Your task to perform on an android device: find snoozed emails in the gmail app Image 0: 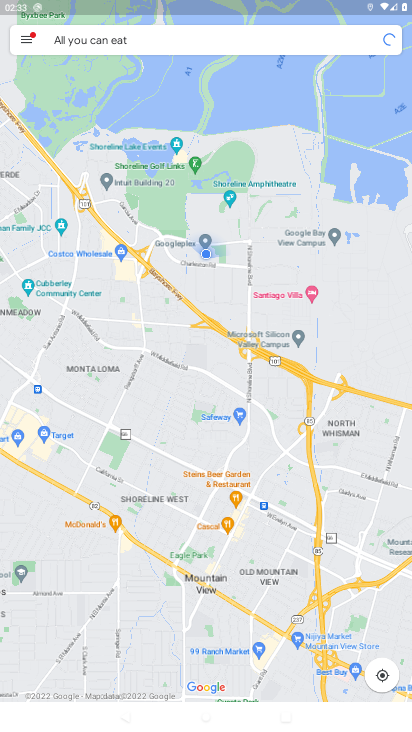
Step 0: drag from (218, 262) to (305, 39)
Your task to perform on an android device: find snoozed emails in the gmail app Image 1: 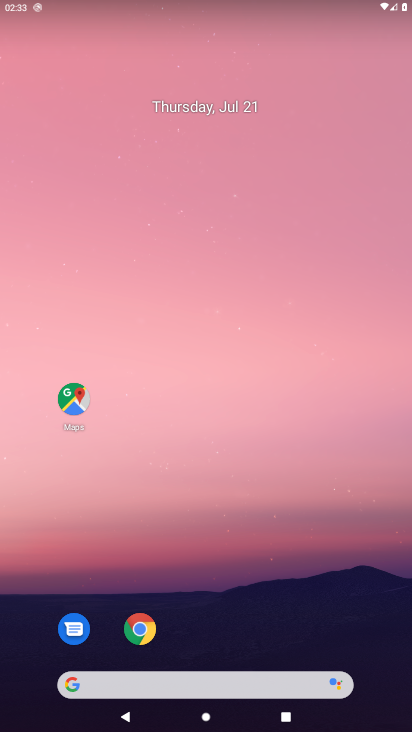
Step 1: drag from (18, 673) to (240, 184)
Your task to perform on an android device: find snoozed emails in the gmail app Image 2: 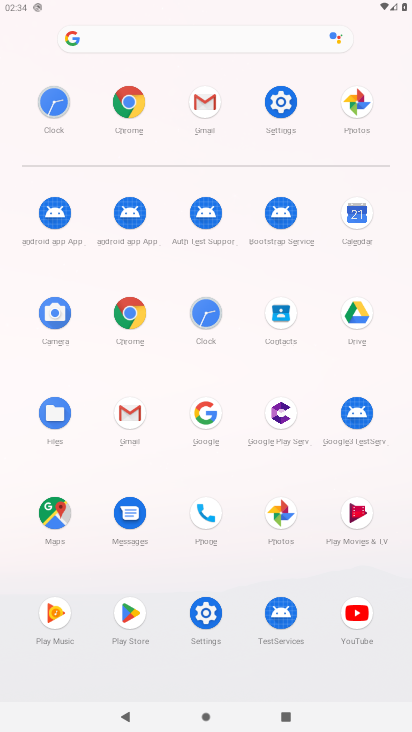
Step 2: click (120, 401)
Your task to perform on an android device: find snoozed emails in the gmail app Image 3: 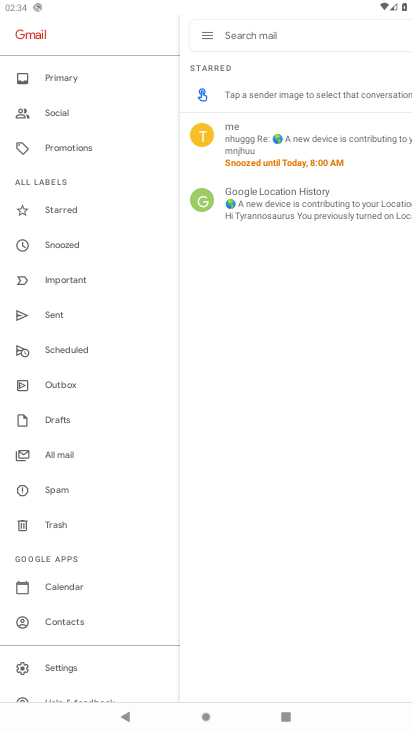
Step 3: click (53, 240)
Your task to perform on an android device: find snoozed emails in the gmail app Image 4: 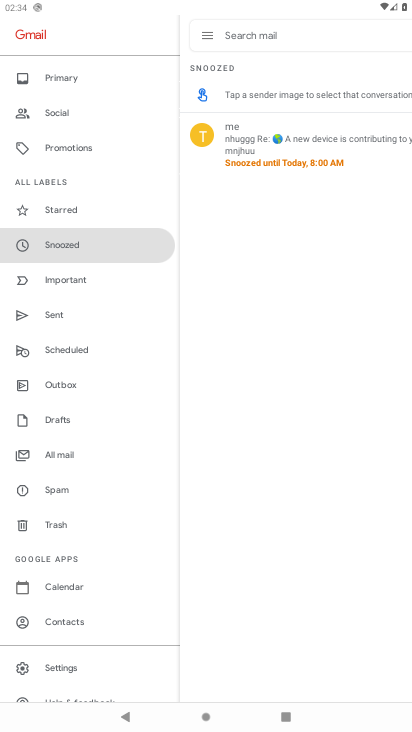
Step 4: task complete